Your task to perform on an android device: Open calendar and show me the second week of next month Image 0: 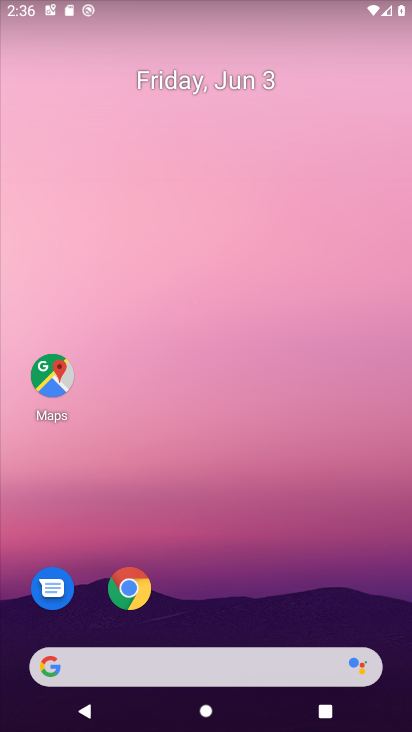
Step 0: drag from (279, 440) to (141, 31)
Your task to perform on an android device: Open calendar and show me the second week of next month Image 1: 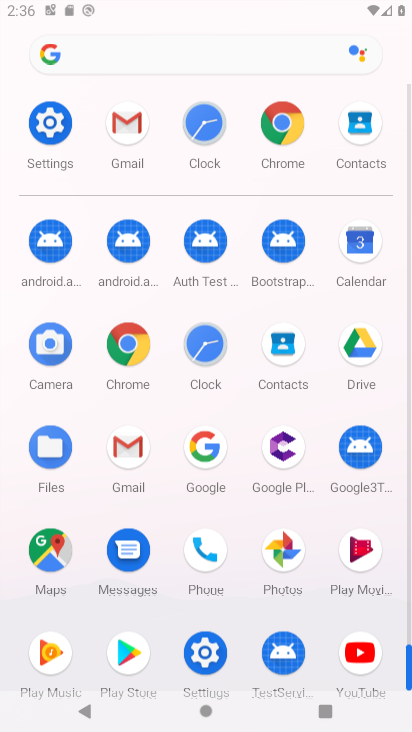
Step 1: drag from (183, 474) to (231, 152)
Your task to perform on an android device: Open calendar and show me the second week of next month Image 2: 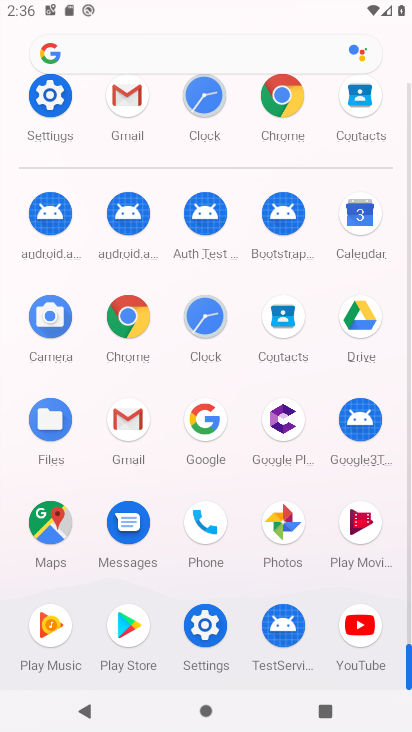
Step 2: drag from (222, 445) to (226, 116)
Your task to perform on an android device: Open calendar and show me the second week of next month Image 3: 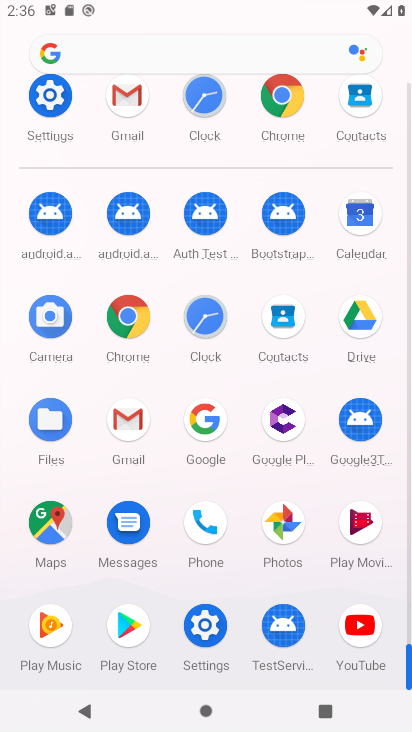
Step 3: click (346, 251)
Your task to perform on an android device: Open calendar and show me the second week of next month Image 4: 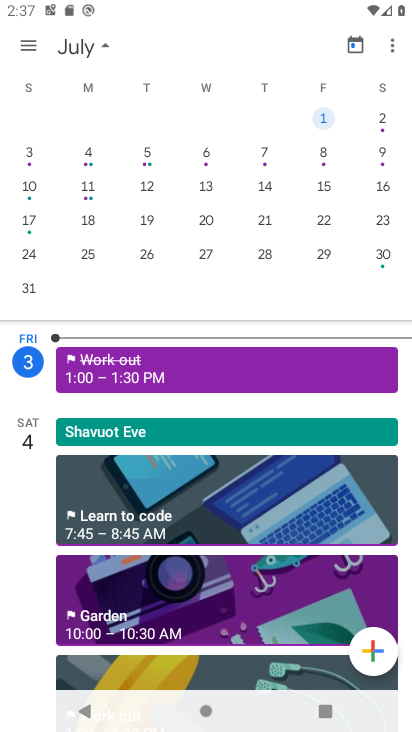
Step 4: click (347, 229)
Your task to perform on an android device: Open calendar and show me the second week of next month Image 5: 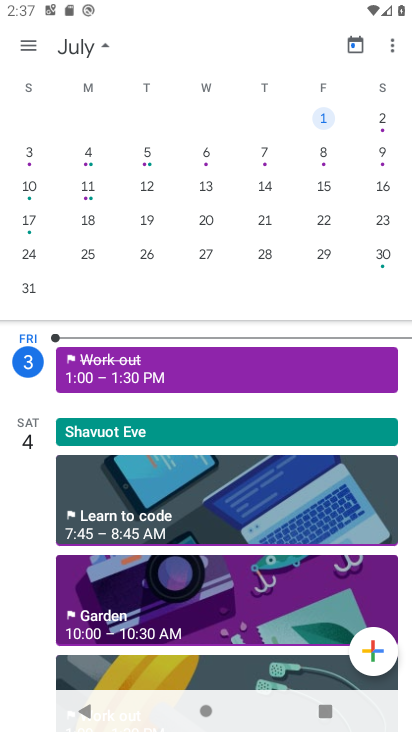
Step 5: click (39, 159)
Your task to perform on an android device: Open calendar and show me the second week of next month Image 6: 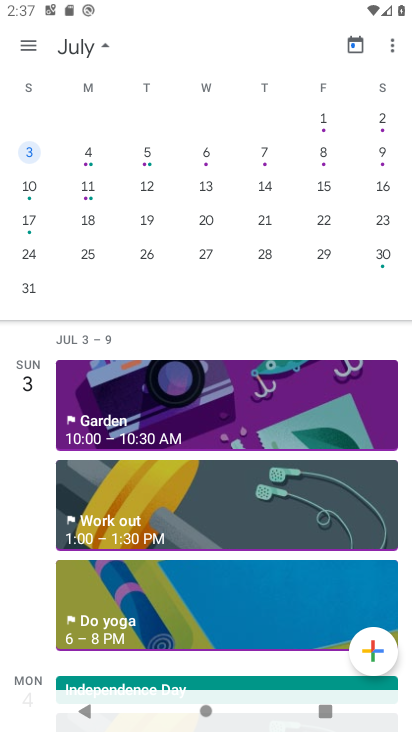
Step 6: task complete